Your task to perform on an android device: add a contact in the contacts app Image 0: 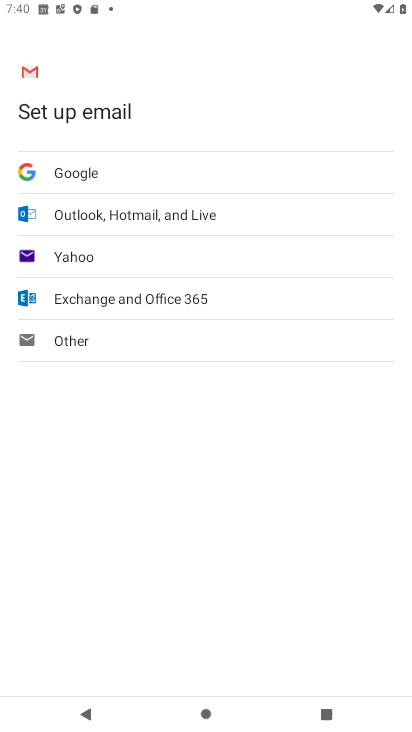
Step 0: press home button
Your task to perform on an android device: add a contact in the contacts app Image 1: 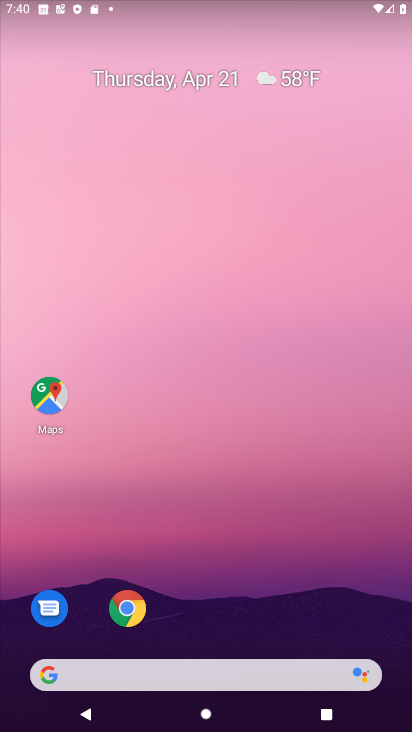
Step 1: click (266, 75)
Your task to perform on an android device: add a contact in the contacts app Image 2: 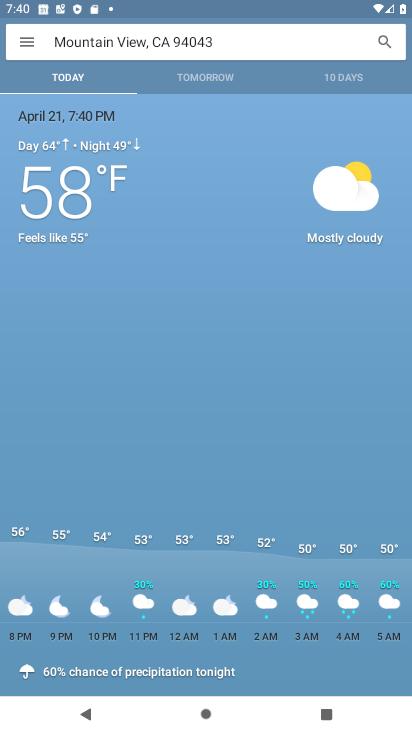
Step 2: click (218, 75)
Your task to perform on an android device: add a contact in the contacts app Image 3: 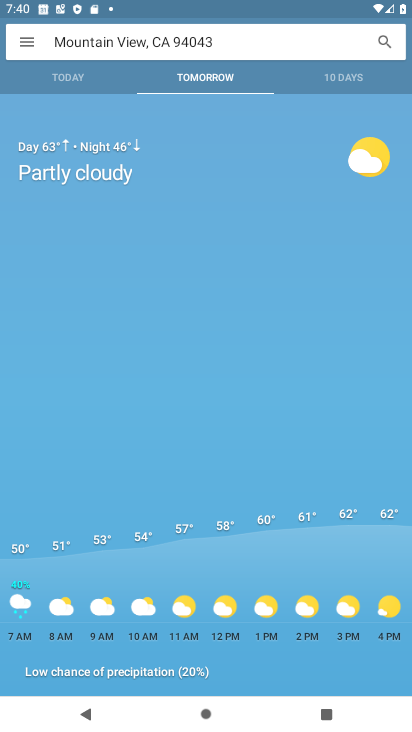
Step 3: task complete